Your task to perform on an android device: Check the news Image 0: 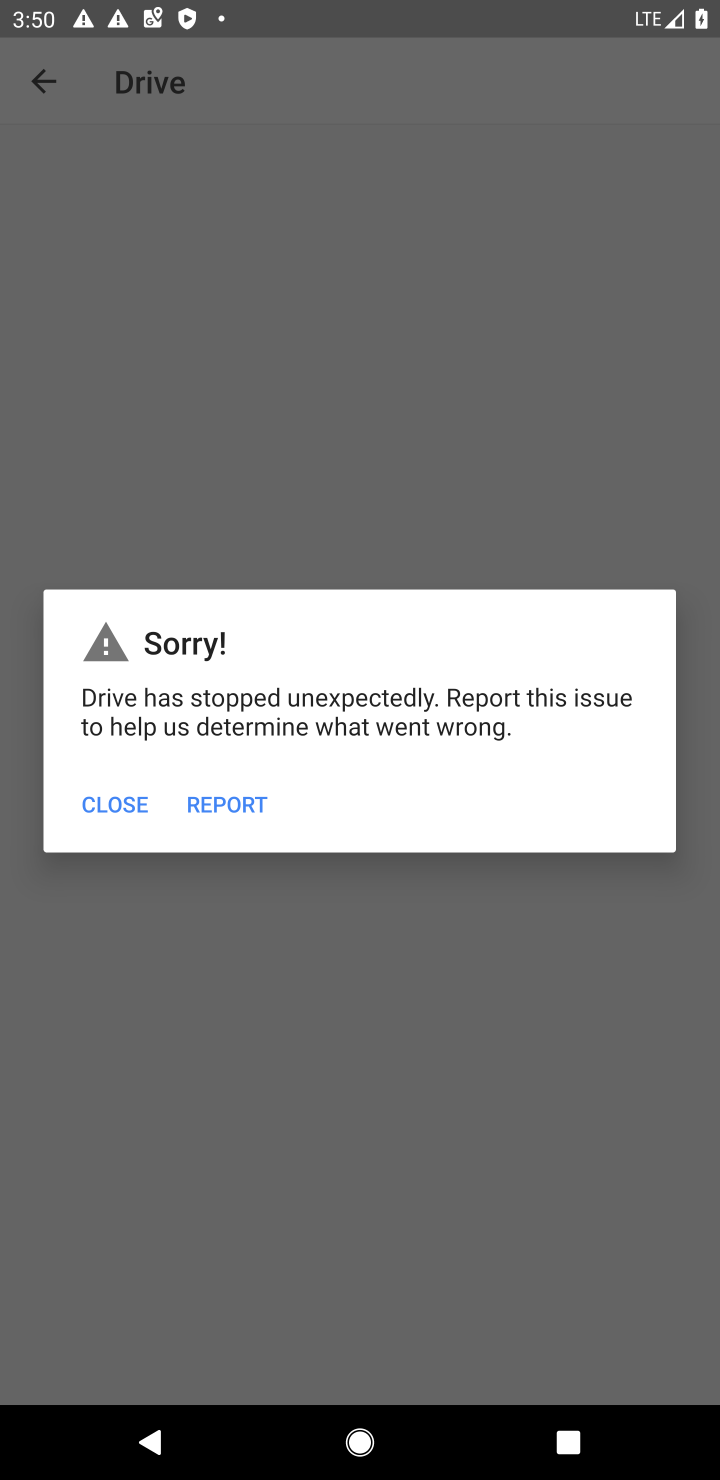
Step 0: press home button
Your task to perform on an android device: Check the news Image 1: 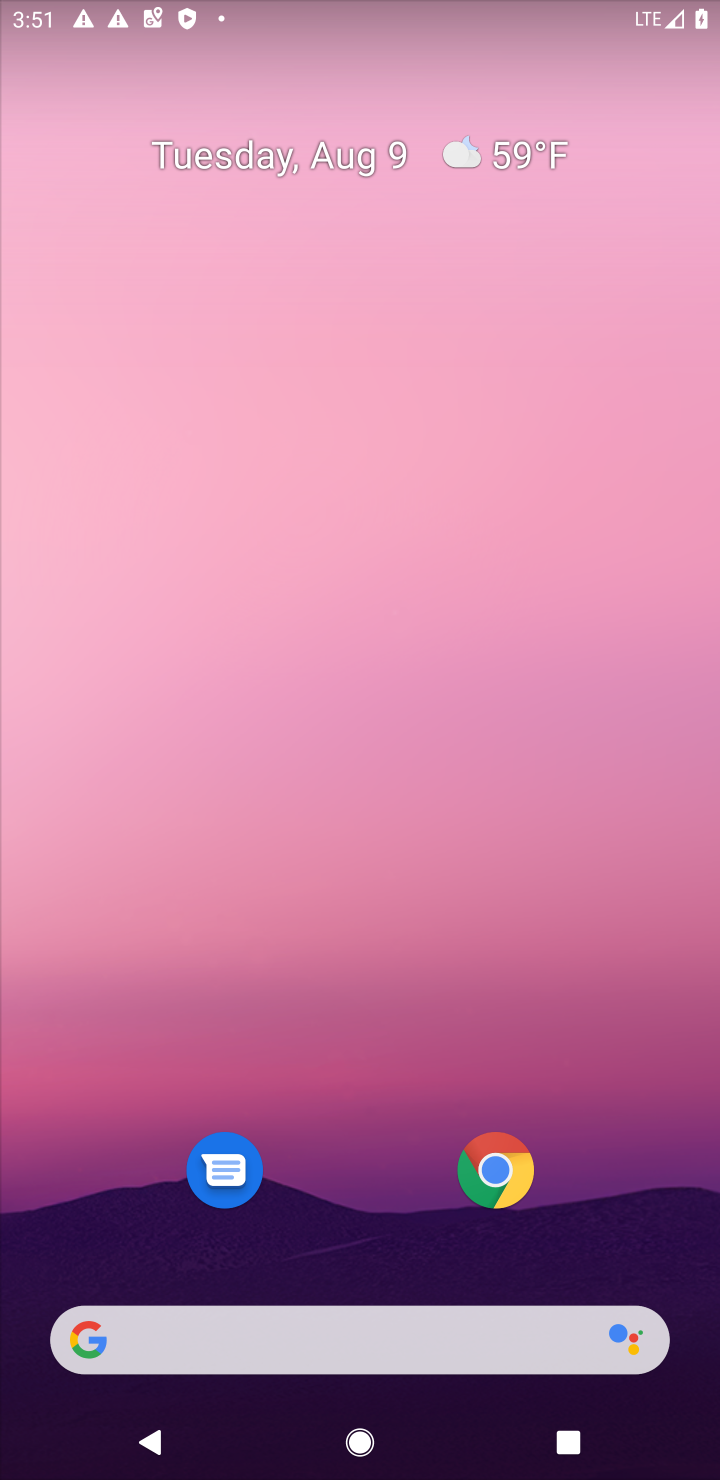
Step 1: click (93, 1340)
Your task to perform on an android device: Check the news Image 2: 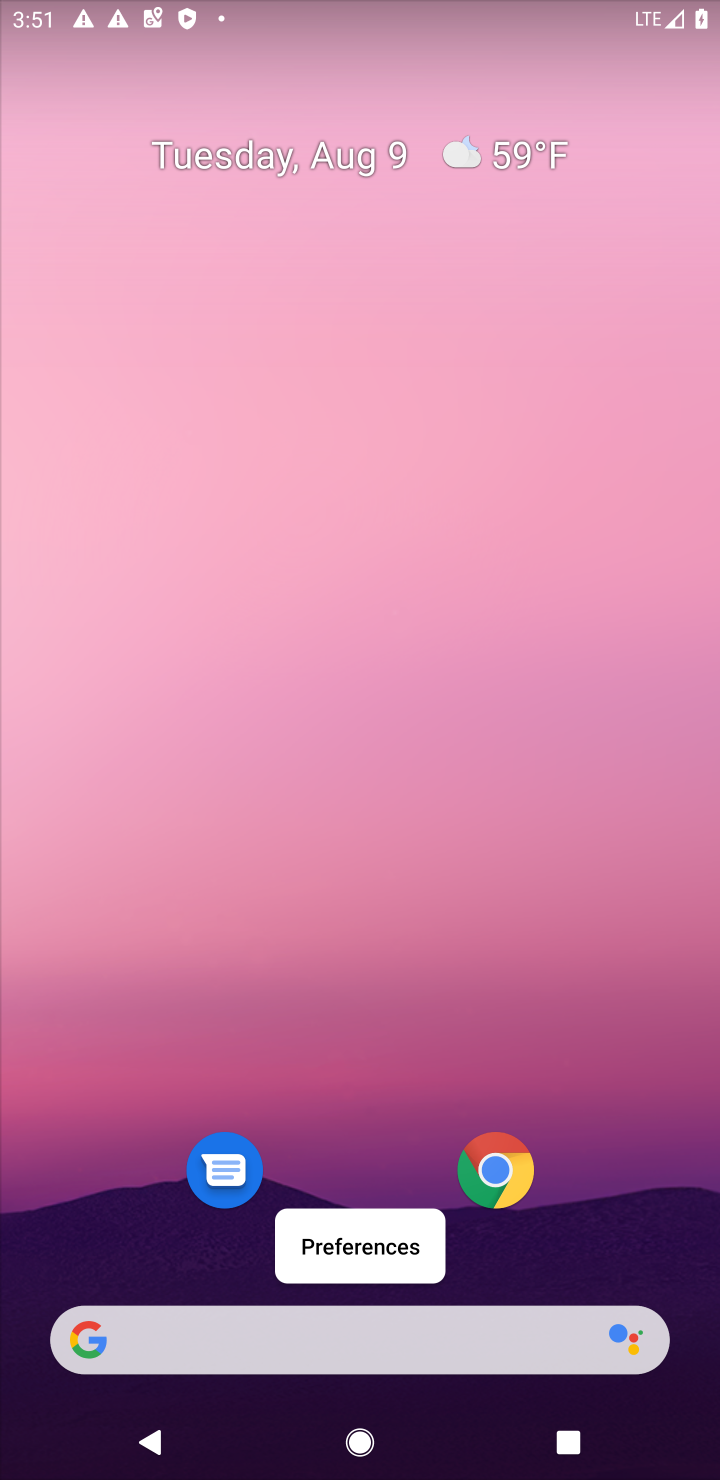
Step 2: click (96, 1346)
Your task to perform on an android device: Check the news Image 3: 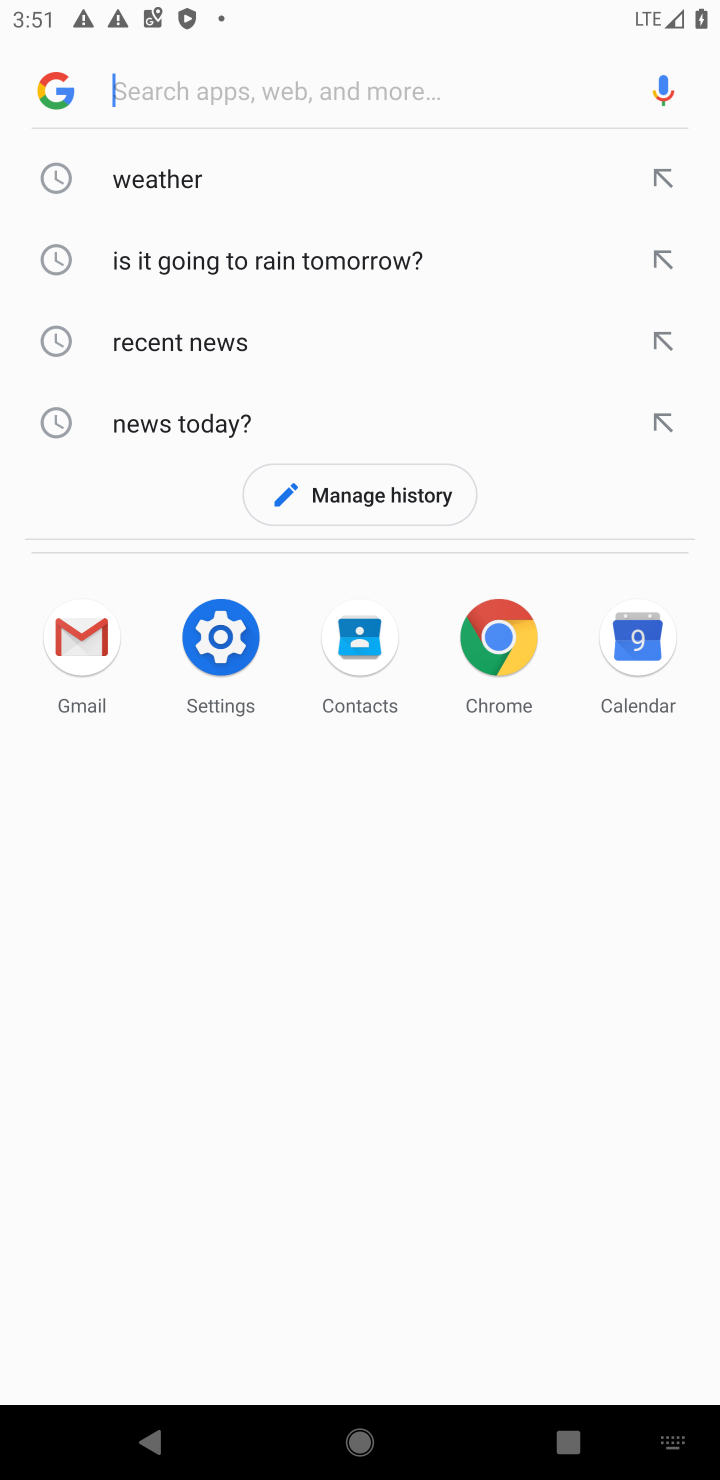
Step 3: type " news"
Your task to perform on an android device: Check the news Image 4: 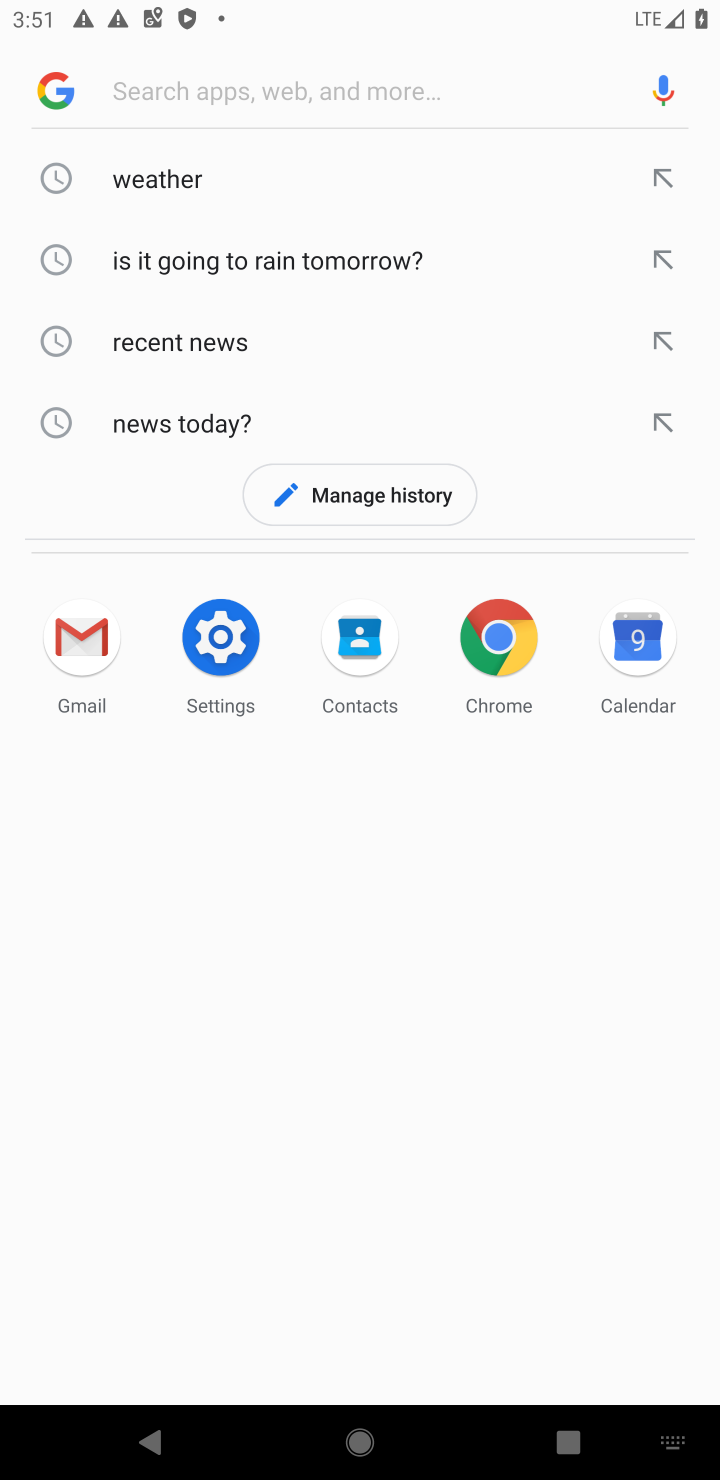
Step 4: click (157, 86)
Your task to perform on an android device: Check the news Image 5: 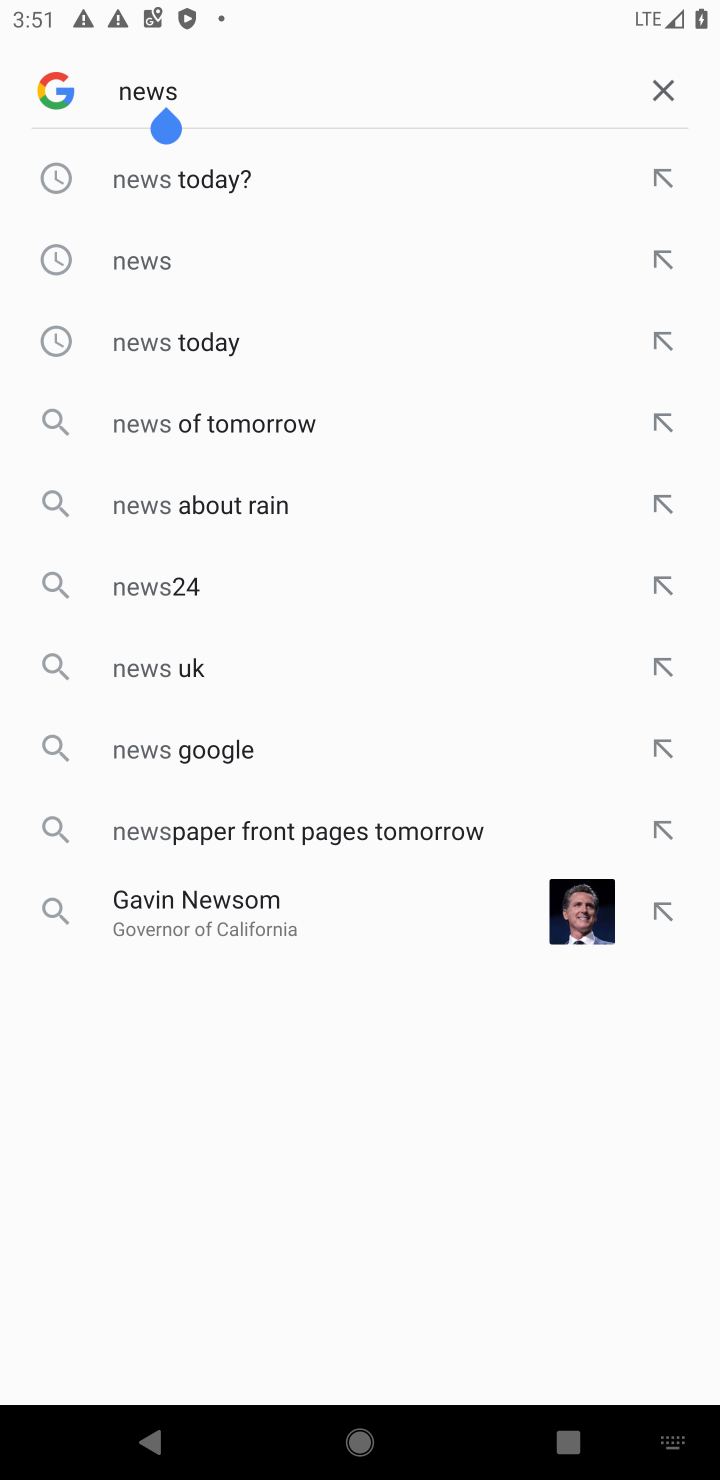
Step 5: click (146, 260)
Your task to perform on an android device: Check the news Image 6: 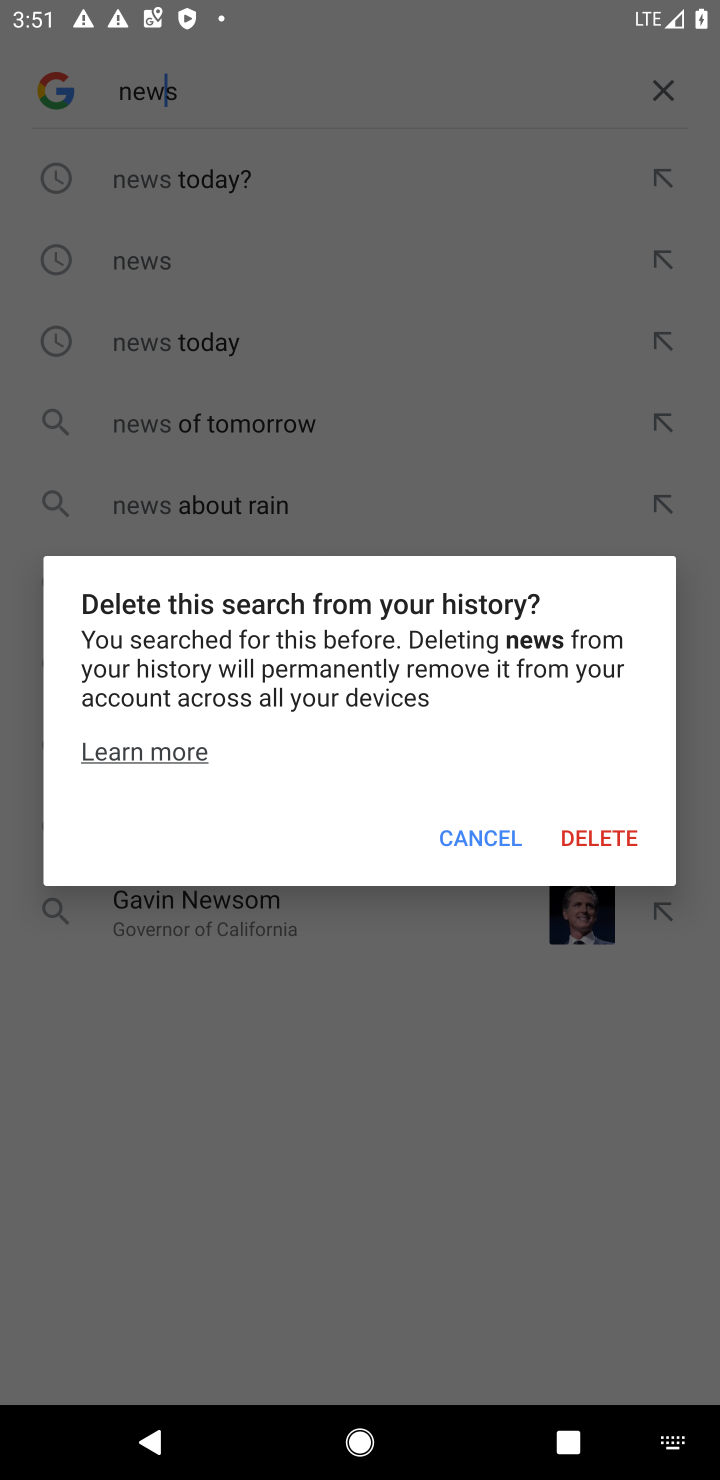
Step 6: click (505, 833)
Your task to perform on an android device: Check the news Image 7: 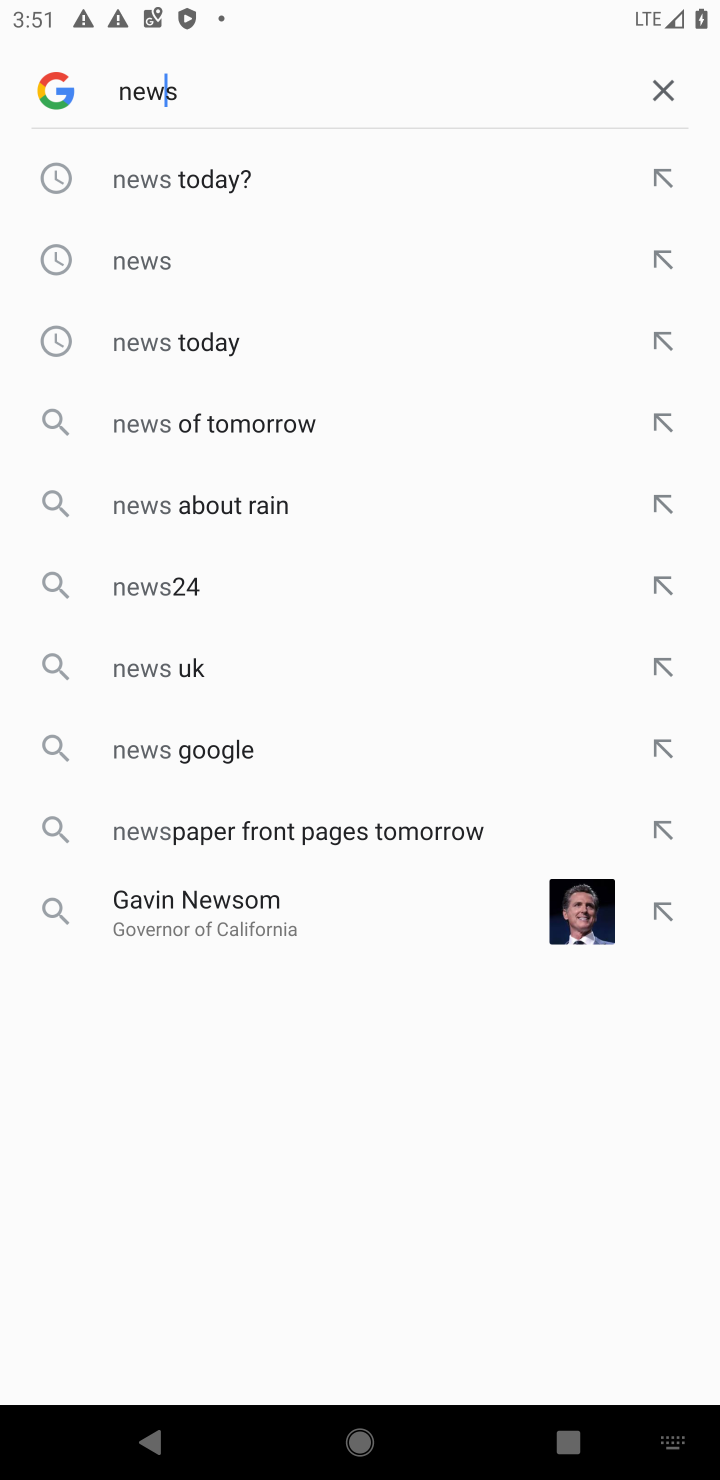
Step 7: click (132, 256)
Your task to perform on an android device: Check the news Image 8: 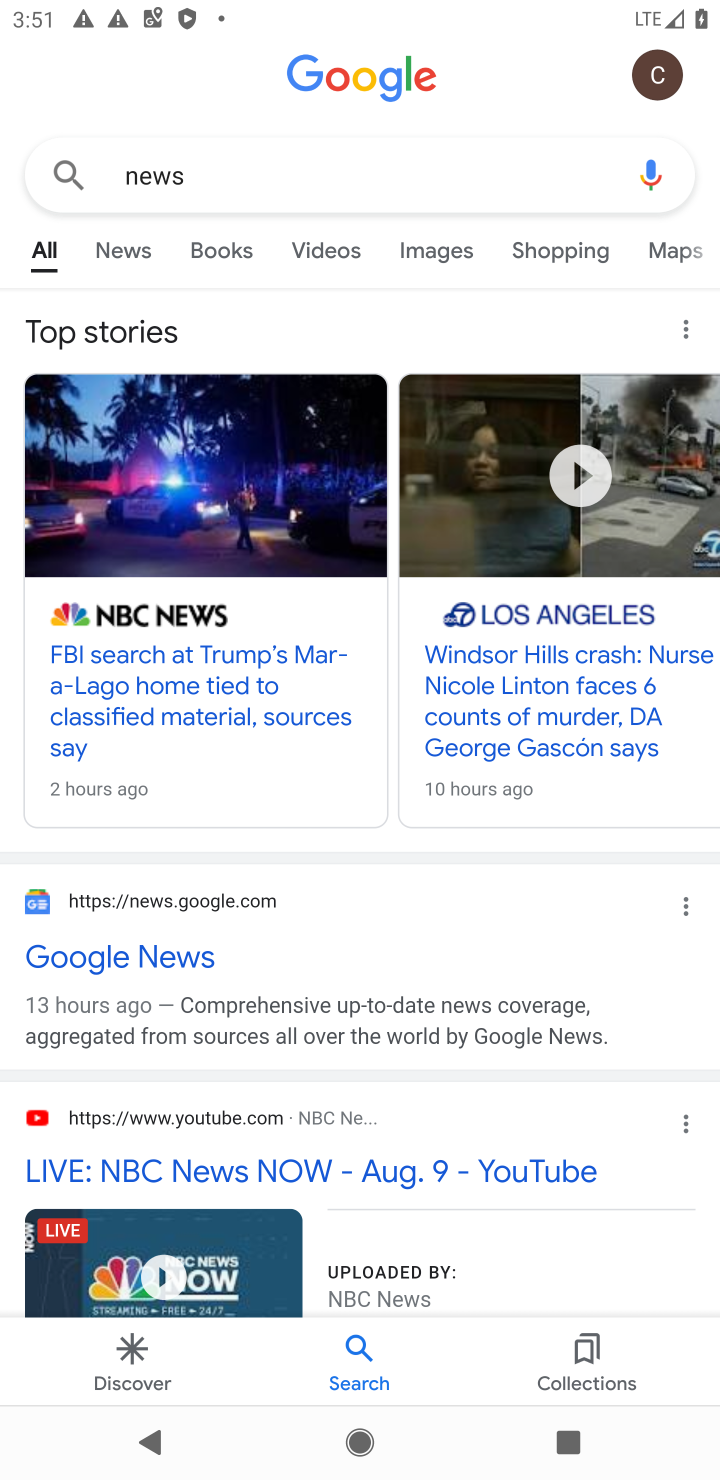
Step 8: task complete